Your task to perform on an android device: What is the recent news? Image 0: 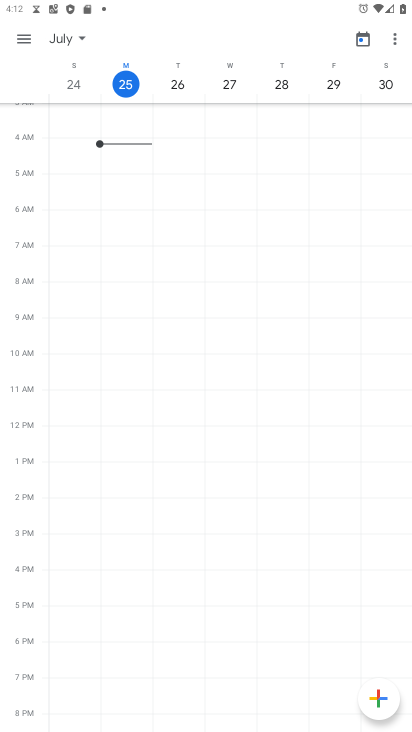
Step 0: press home button
Your task to perform on an android device: What is the recent news? Image 1: 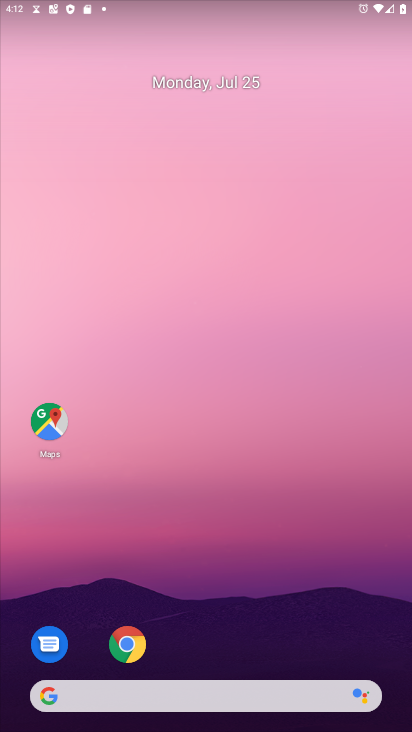
Step 1: click (46, 692)
Your task to perform on an android device: What is the recent news? Image 2: 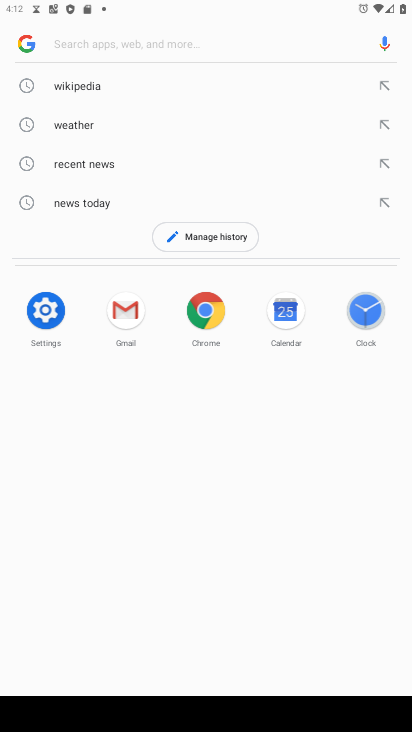
Step 2: click (100, 160)
Your task to perform on an android device: What is the recent news? Image 3: 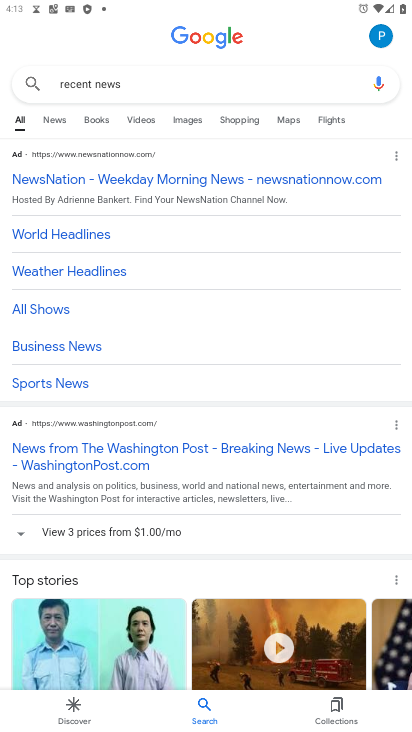
Step 3: task complete